Your task to perform on an android device: toggle improve location accuracy Image 0: 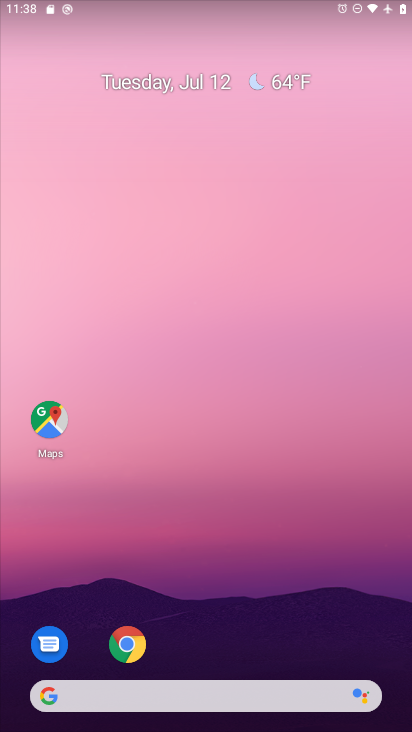
Step 0: drag from (278, 651) to (263, 143)
Your task to perform on an android device: toggle improve location accuracy Image 1: 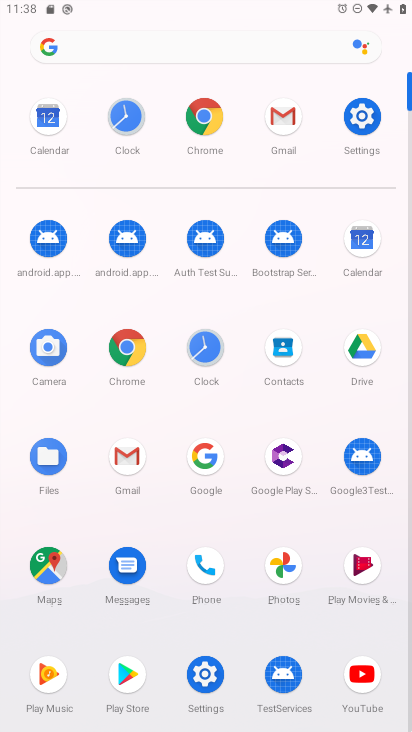
Step 1: click (220, 683)
Your task to perform on an android device: toggle improve location accuracy Image 2: 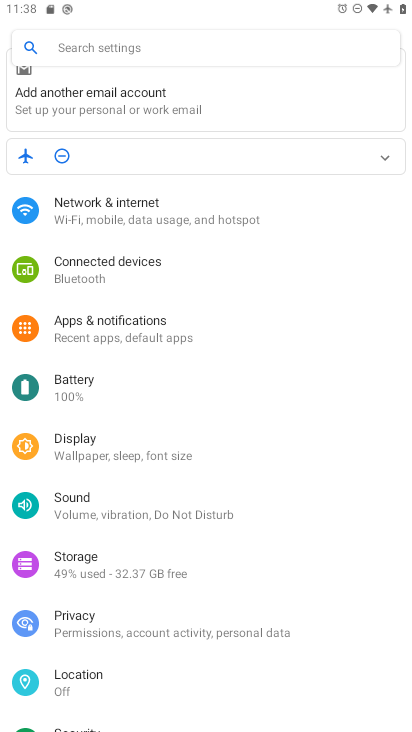
Step 2: click (175, 331)
Your task to perform on an android device: toggle improve location accuracy Image 3: 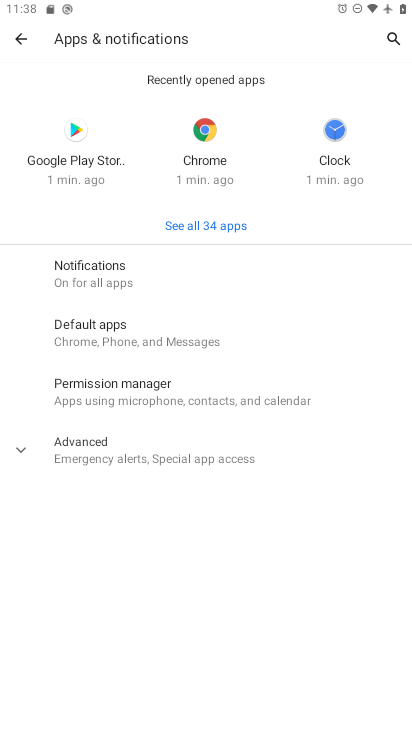
Step 3: click (176, 455)
Your task to perform on an android device: toggle improve location accuracy Image 4: 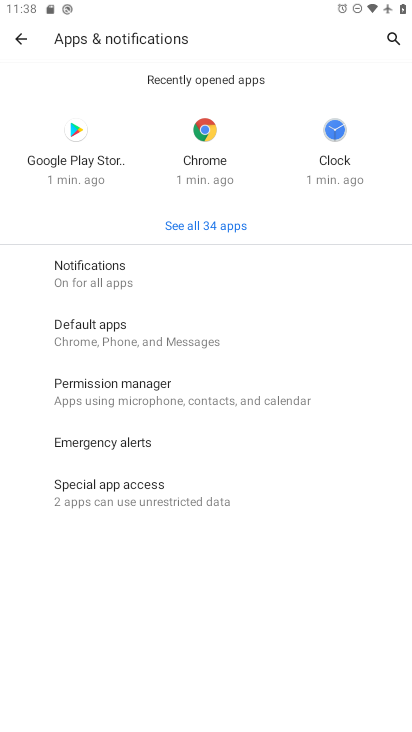
Step 4: click (205, 291)
Your task to perform on an android device: toggle improve location accuracy Image 5: 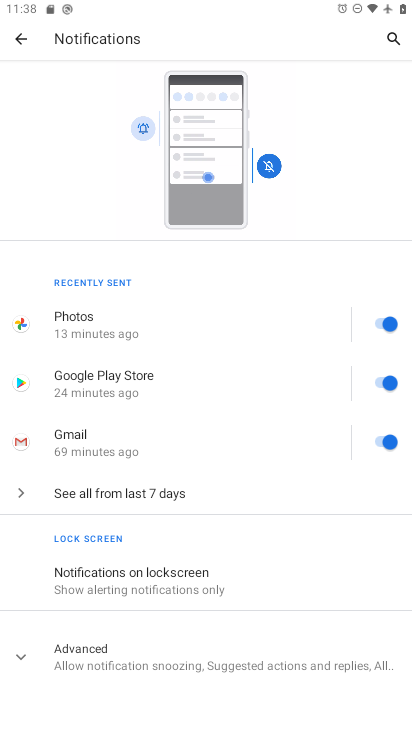
Step 5: click (28, 52)
Your task to perform on an android device: toggle improve location accuracy Image 6: 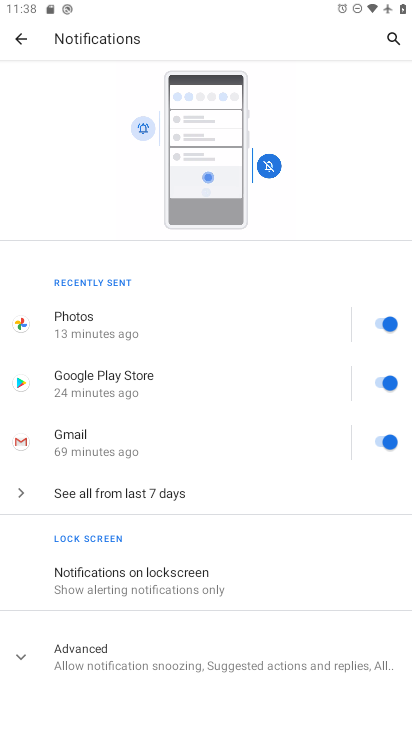
Step 6: click (28, 52)
Your task to perform on an android device: toggle improve location accuracy Image 7: 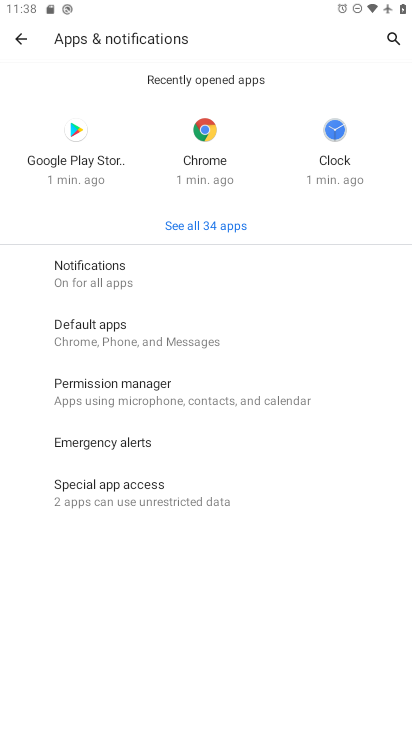
Step 7: click (24, 40)
Your task to perform on an android device: toggle improve location accuracy Image 8: 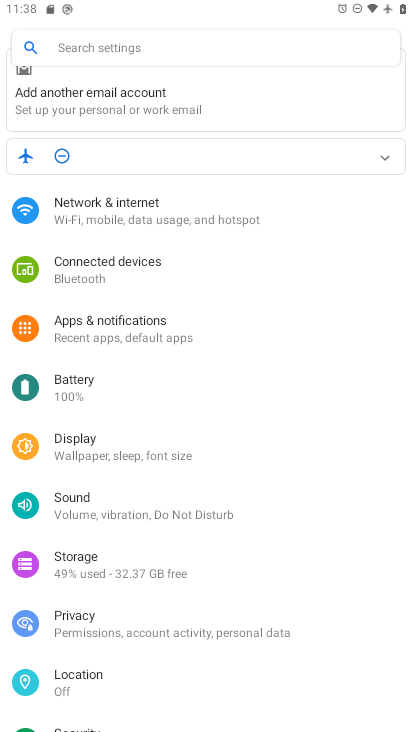
Step 8: click (118, 664)
Your task to perform on an android device: toggle improve location accuracy Image 9: 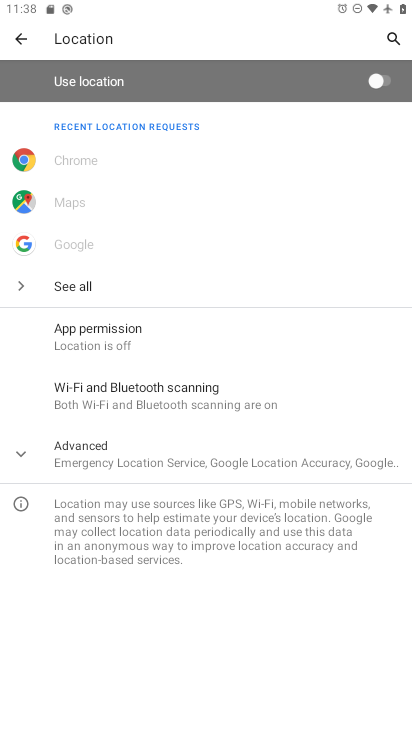
Step 9: click (185, 452)
Your task to perform on an android device: toggle improve location accuracy Image 10: 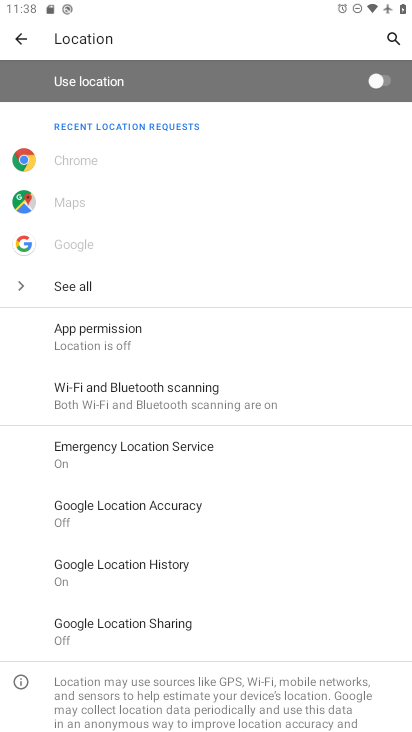
Step 10: click (208, 521)
Your task to perform on an android device: toggle improve location accuracy Image 11: 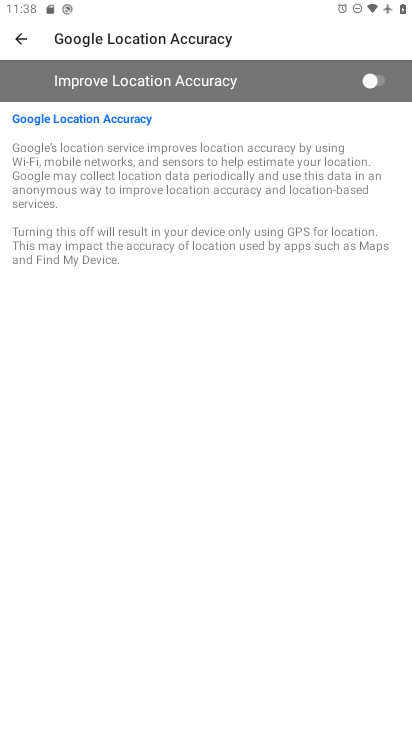
Step 11: click (363, 88)
Your task to perform on an android device: toggle improve location accuracy Image 12: 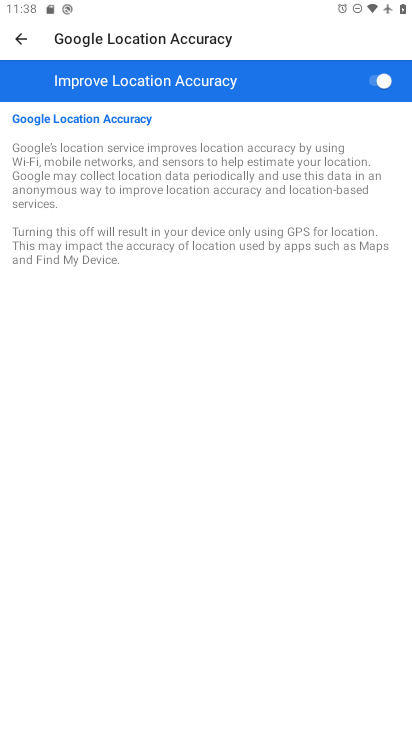
Step 12: task complete